Your task to perform on an android device: Open ESPN.com Image 0: 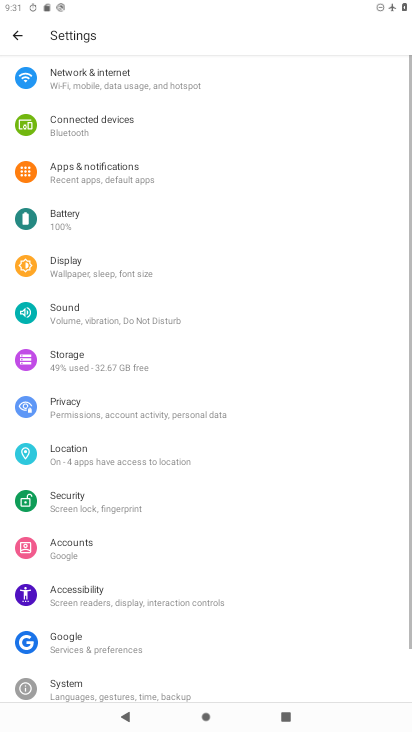
Step 0: press home button
Your task to perform on an android device: Open ESPN.com Image 1: 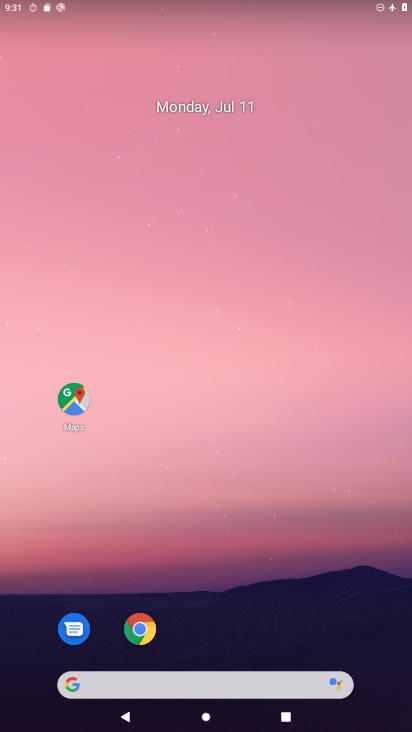
Step 1: click (144, 634)
Your task to perform on an android device: Open ESPN.com Image 2: 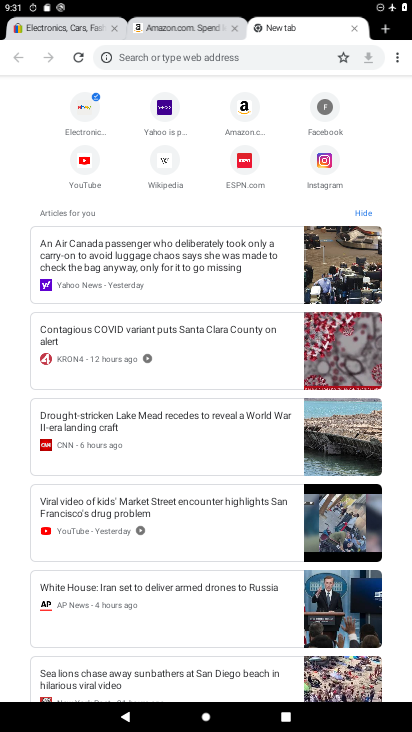
Step 2: click (248, 163)
Your task to perform on an android device: Open ESPN.com Image 3: 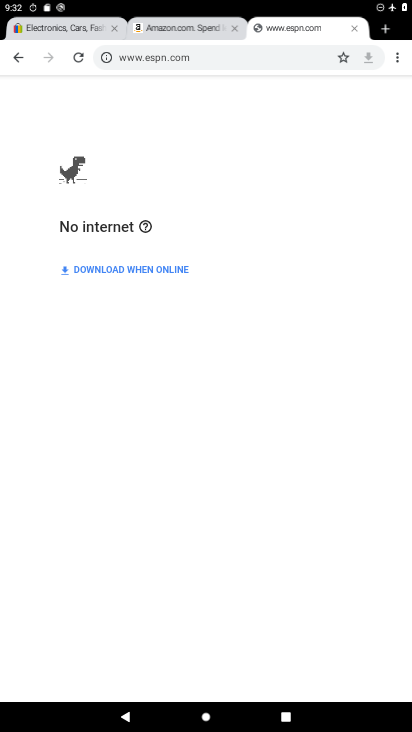
Step 3: drag from (242, 3) to (251, 556)
Your task to perform on an android device: Open ESPN.com Image 4: 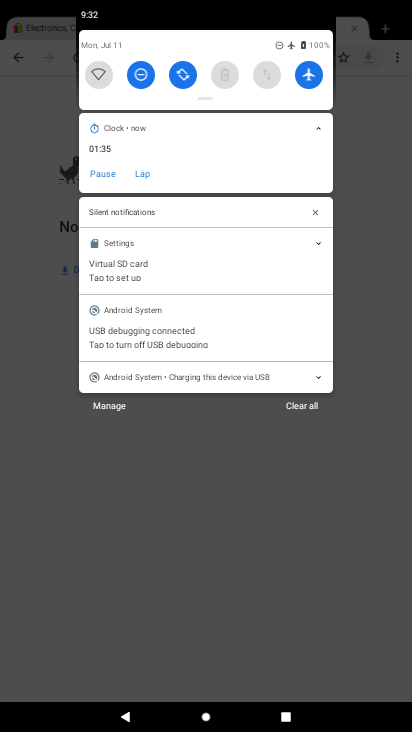
Step 4: click (305, 84)
Your task to perform on an android device: Open ESPN.com Image 5: 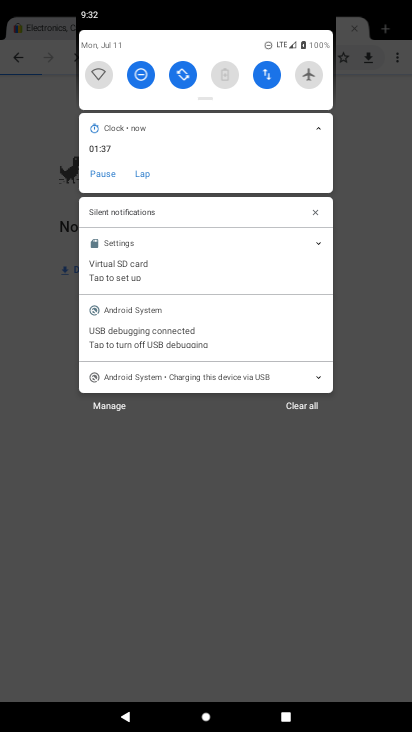
Step 5: task complete